Your task to perform on an android device: read, delete, or share a saved page in the chrome app Image 0: 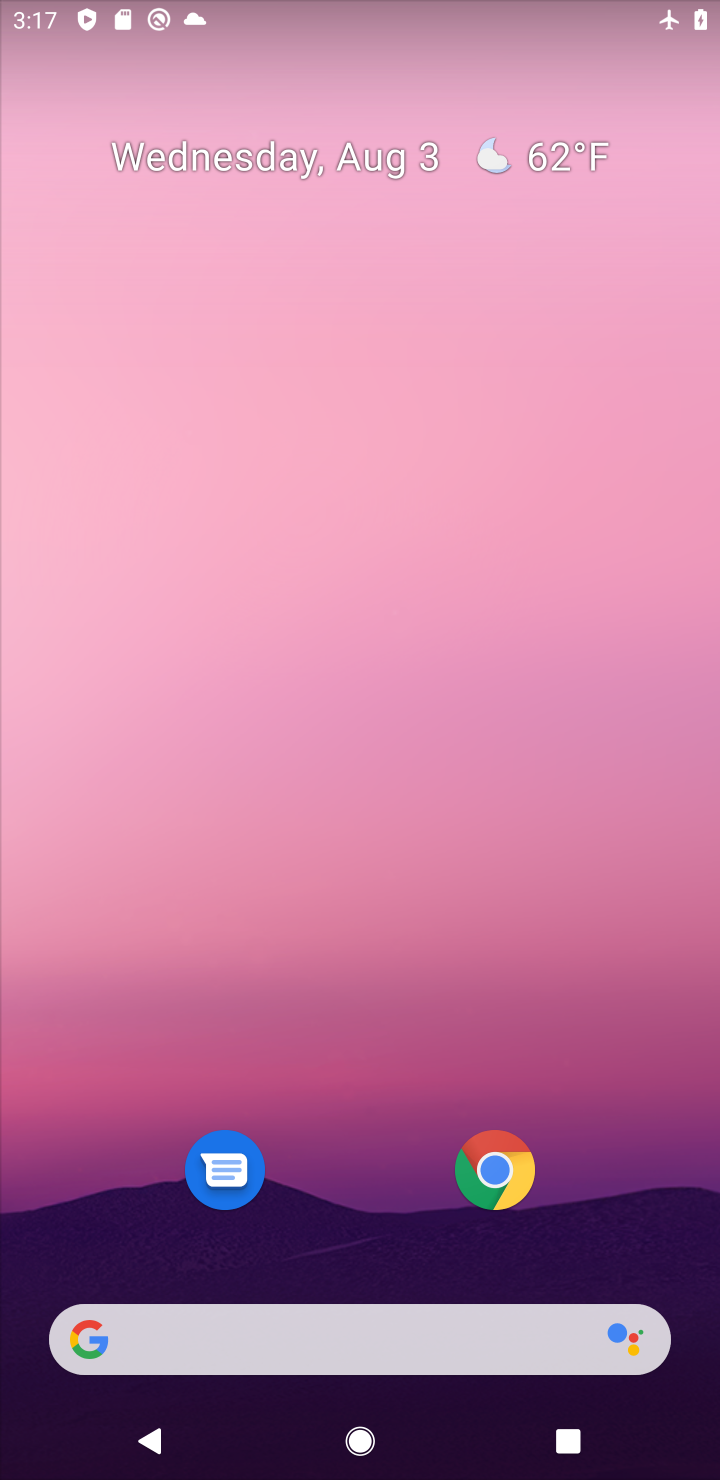
Step 0: click (486, 1177)
Your task to perform on an android device: read, delete, or share a saved page in the chrome app Image 1: 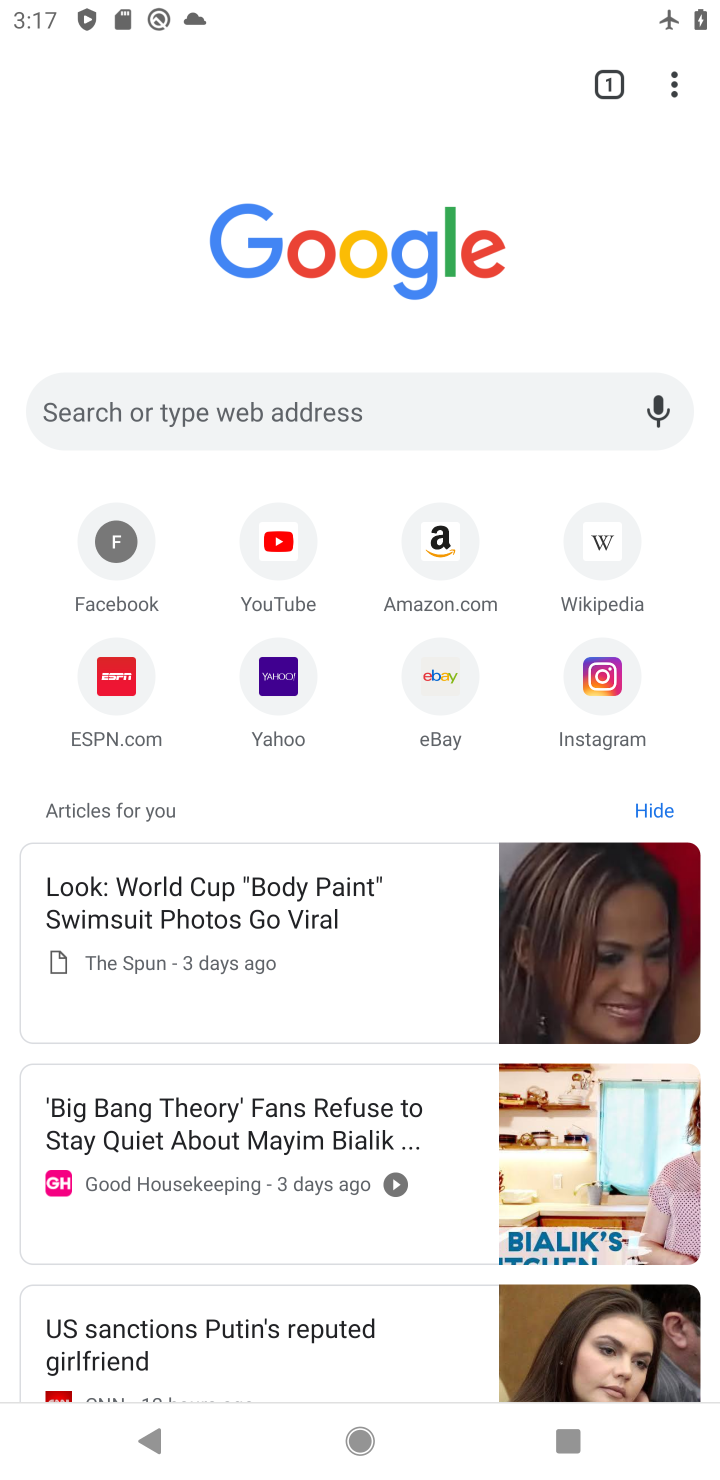
Step 1: click (678, 85)
Your task to perform on an android device: read, delete, or share a saved page in the chrome app Image 2: 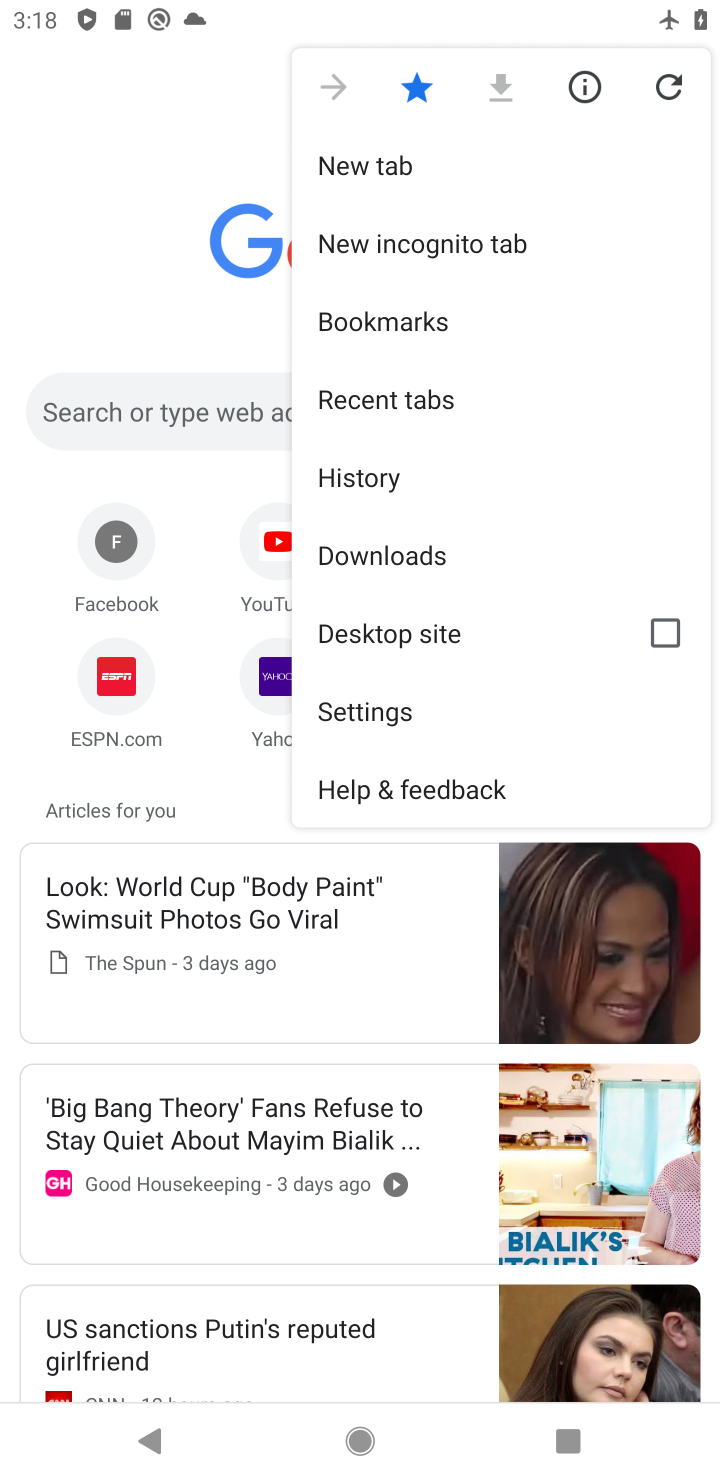
Step 2: click (359, 696)
Your task to perform on an android device: read, delete, or share a saved page in the chrome app Image 3: 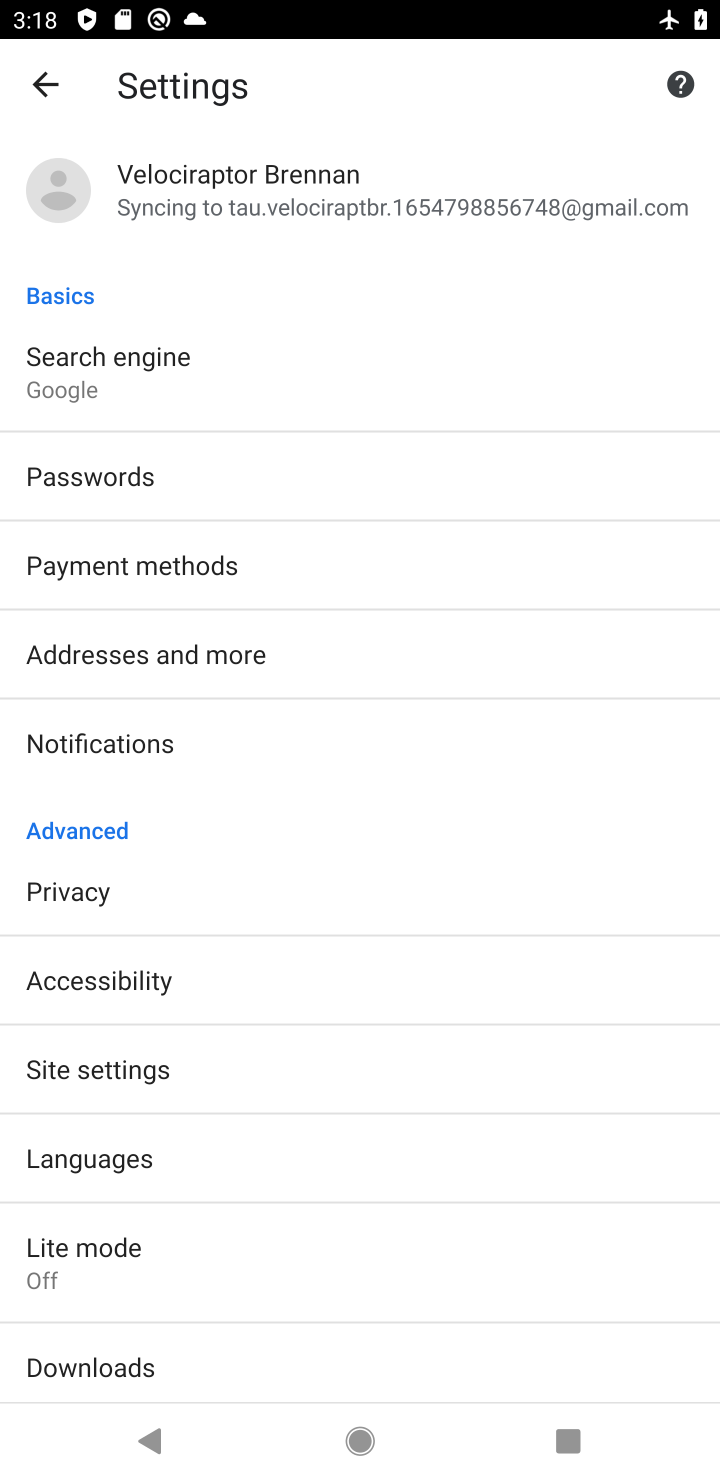
Step 3: task complete